Your task to perform on an android device: Open the calendar app, open the side menu, and click the "Day" option Image 0: 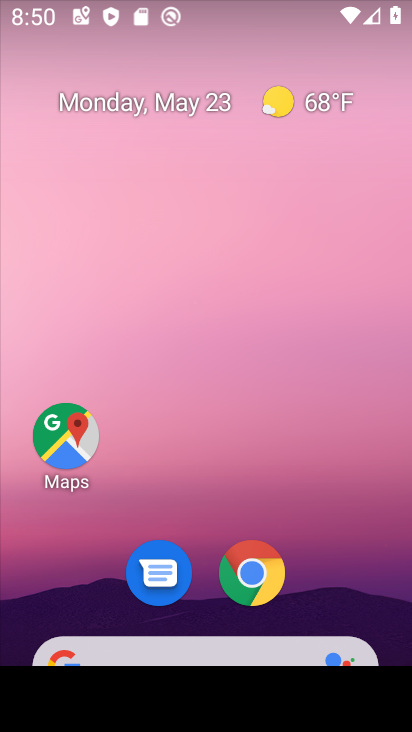
Step 0: drag from (351, 634) to (329, 201)
Your task to perform on an android device: Open the calendar app, open the side menu, and click the "Day" option Image 1: 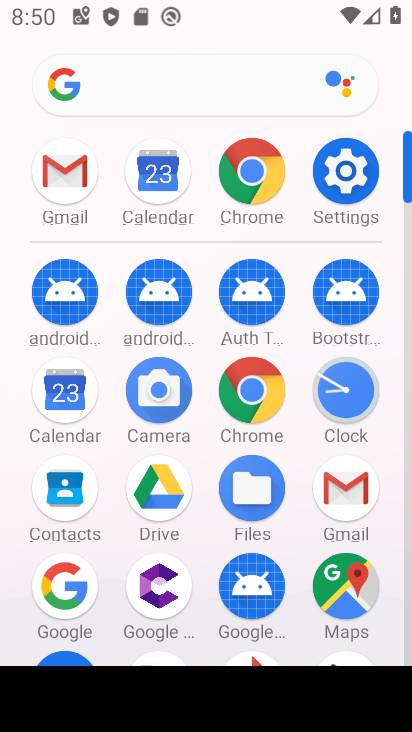
Step 1: click (58, 395)
Your task to perform on an android device: Open the calendar app, open the side menu, and click the "Day" option Image 2: 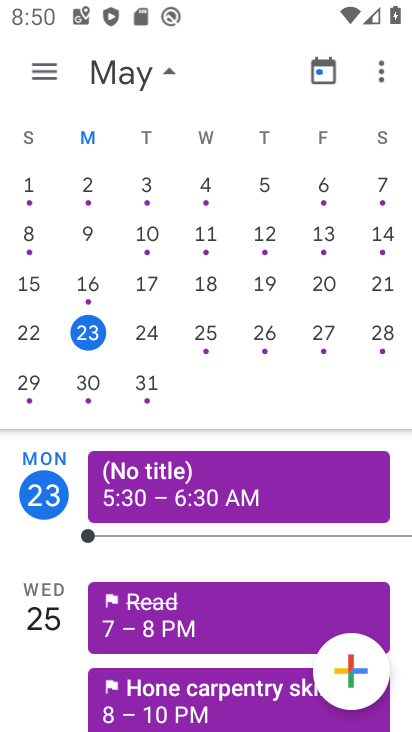
Step 2: click (47, 77)
Your task to perform on an android device: Open the calendar app, open the side menu, and click the "Day" option Image 3: 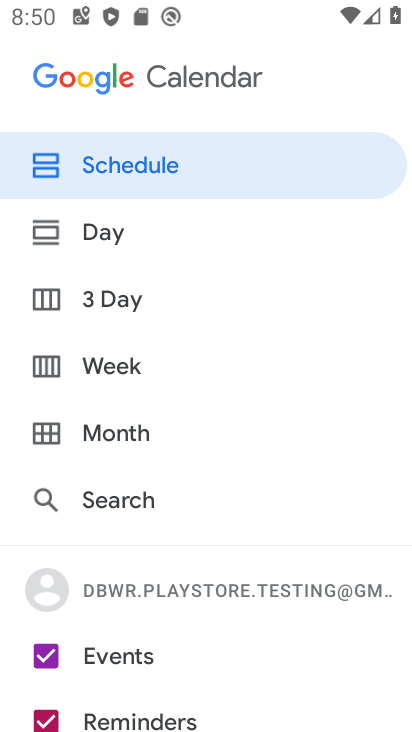
Step 3: click (124, 232)
Your task to perform on an android device: Open the calendar app, open the side menu, and click the "Day" option Image 4: 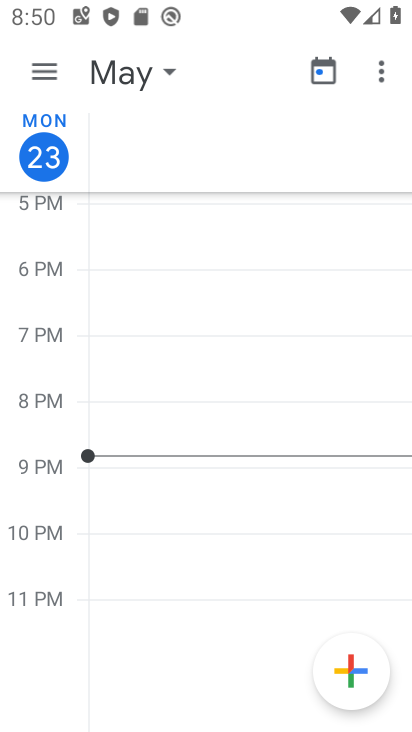
Step 4: task complete